Your task to perform on an android device: Go to Wikipedia Image 0: 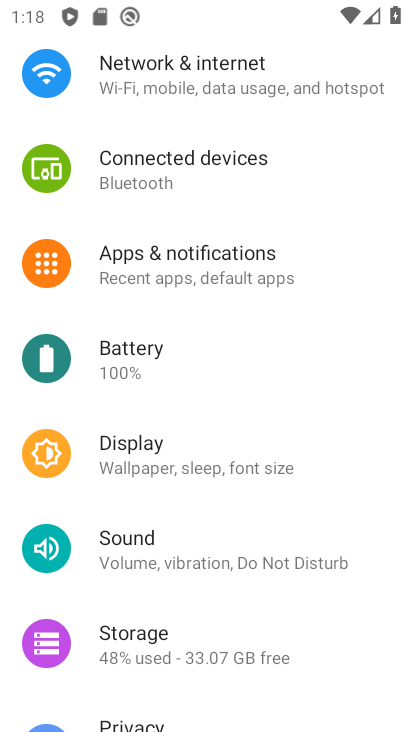
Step 0: press home button
Your task to perform on an android device: Go to Wikipedia Image 1: 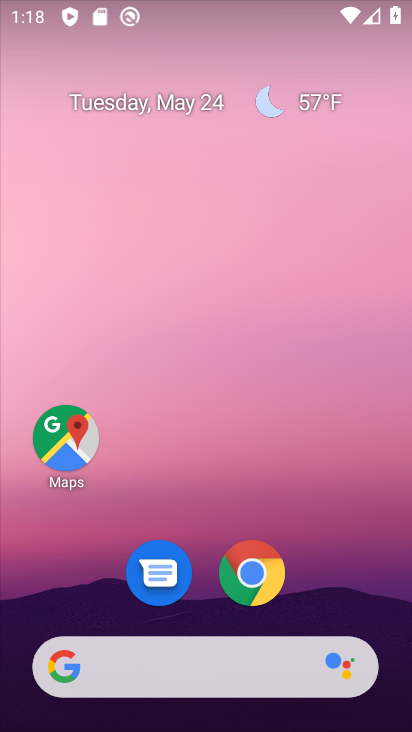
Step 1: click (238, 584)
Your task to perform on an android device: Go to Wikipedia Image 2: 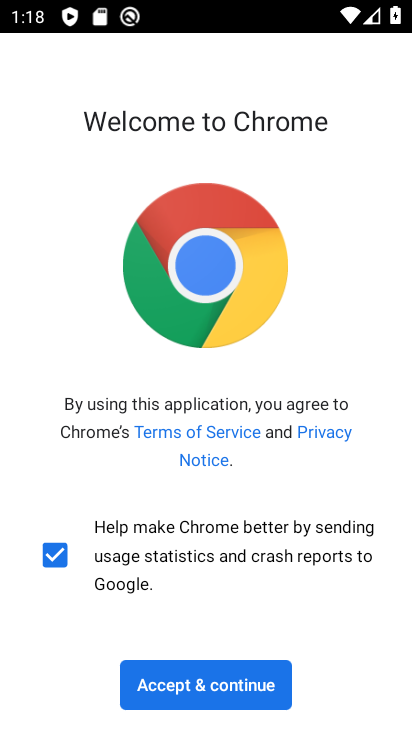
Step 2: click (268, 699)
Your task to perform on an android device: Go to Wikipedia Image 3: 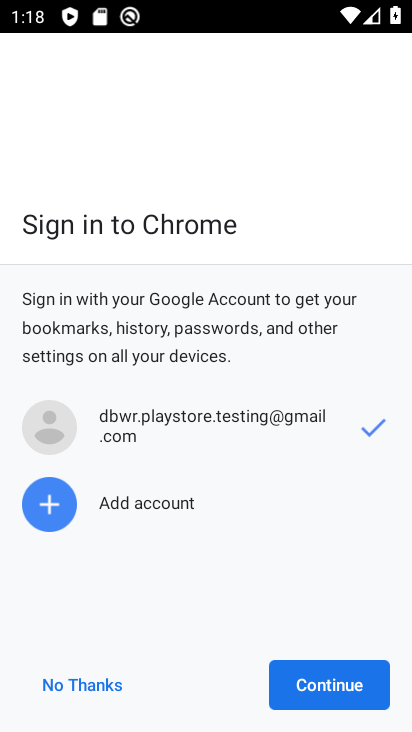
Step 3: click (309, 687)
Your task to perform on an android device: Go to Wikipedia Image 4: 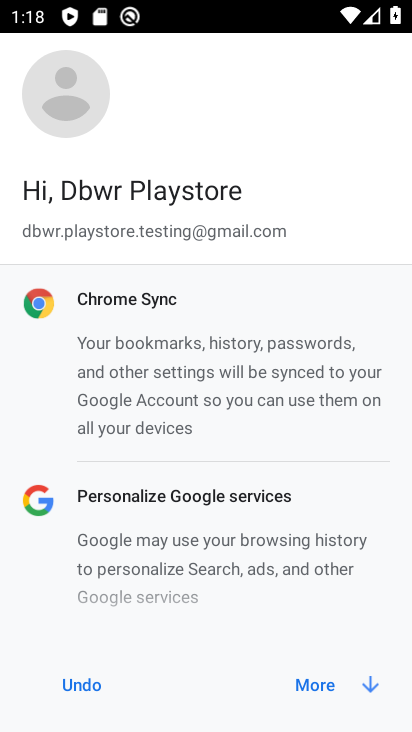
Step 4: click (309, 687)
Your task to perform on an android device: Go to Wikipedia Image 5: 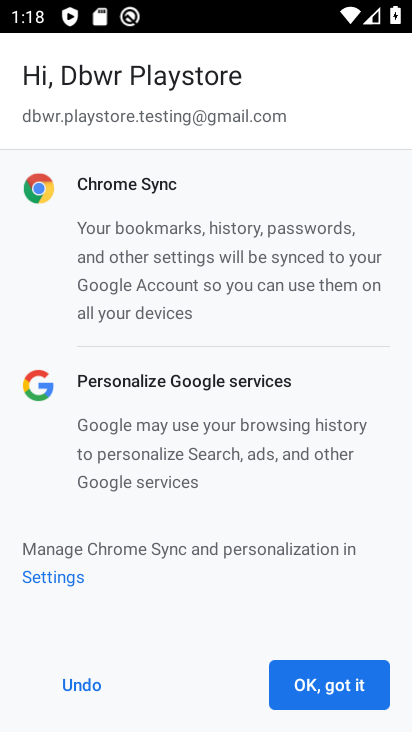
Step 5: click (309, 687)
Your task to perform on an android device: Go to Wikipedia Image 6: 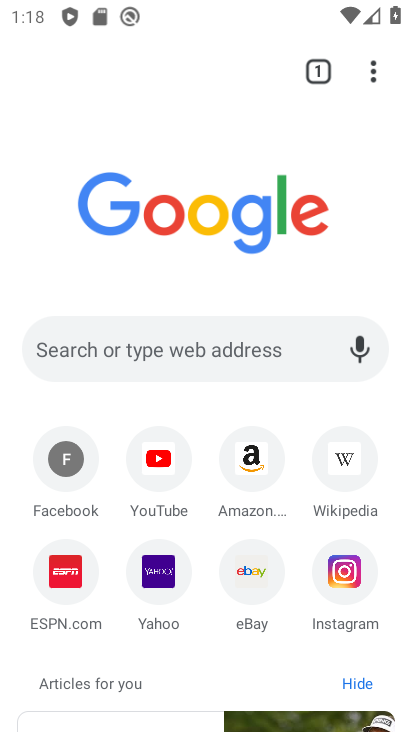
Step 6: click (355, 472)
Your task to perform on an android device: Go to Wikipedia Image 7: 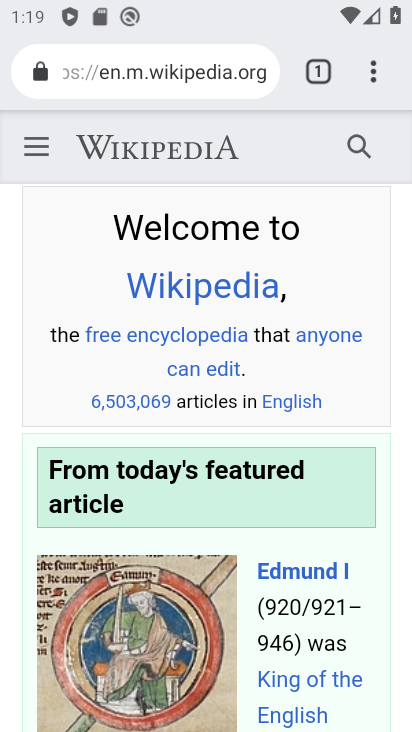
Step 7: task complete